Your task to perform on an android device: turn on notifications settings in the gmail app Image 0: 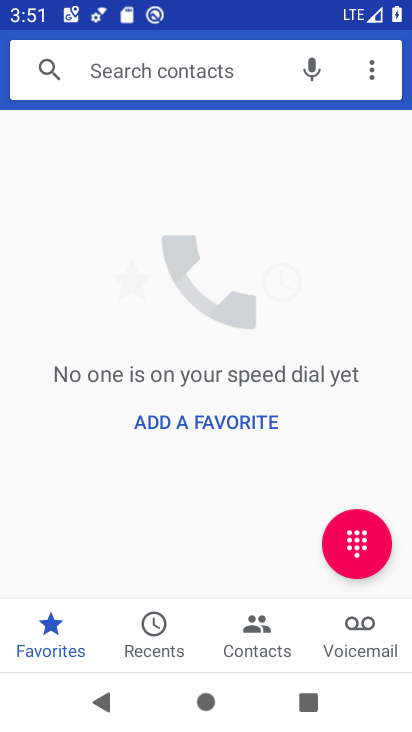
Step 0: press home button
Your task to perform on an android device: turn on notifications settings in the gmail app Image 1: 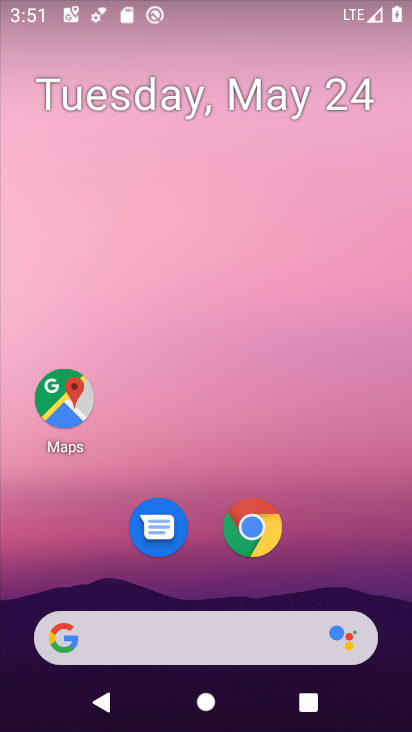
Step 1: click (360, 5)
Your task to perform on an android device: turn on notifications settings in the gmail app Image 2: 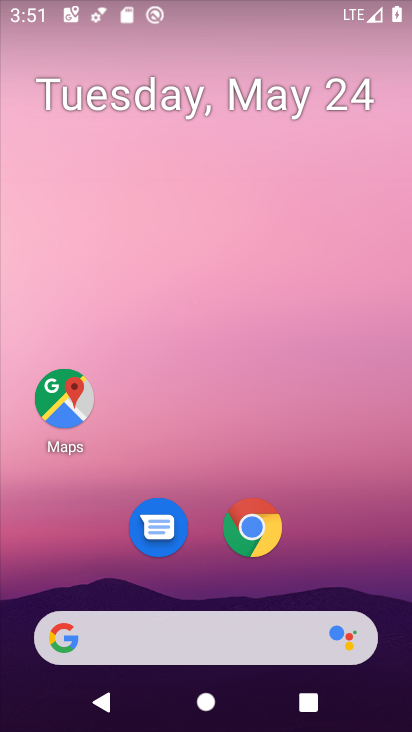
Step 2: drag from (343, 591) to (383, 701)
Your task to perform on an android device: turn on notifications settings in the gmail app Image 3: 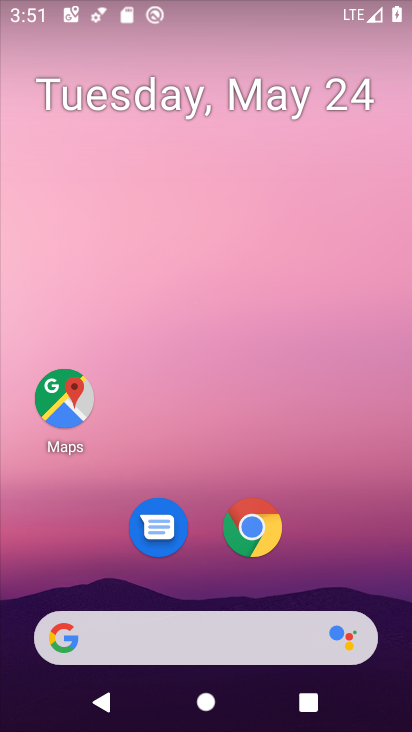
Step 3: drag from (338, 208) to (341, 0)
Your task to perform on an android device: turn on notifications settings in the gmail app Image 4: 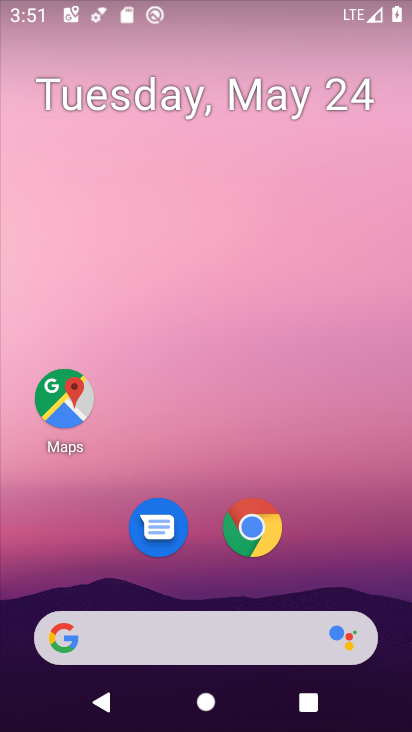
Step 4: drag from (340, 605) to (327, 14)
Your task to perform on an android device: turn on notifications settings in the gmail app Image 5: 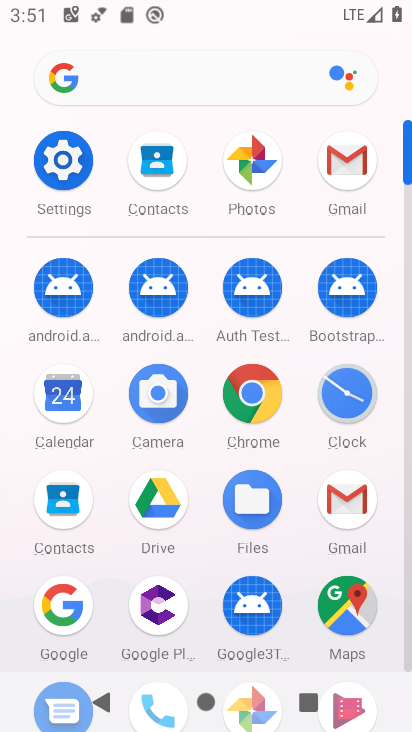
Step 5: click (349, 153)
Your task to perform on an android device: turn on notifications settings in the gmail app Image 6: 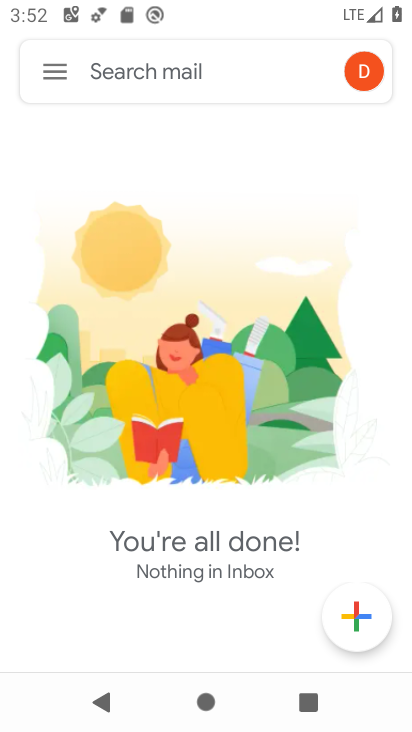
Step 6: click (52, 75)
Your task to perform on an android device: turn on notifications settings in the gmail app Image 7: 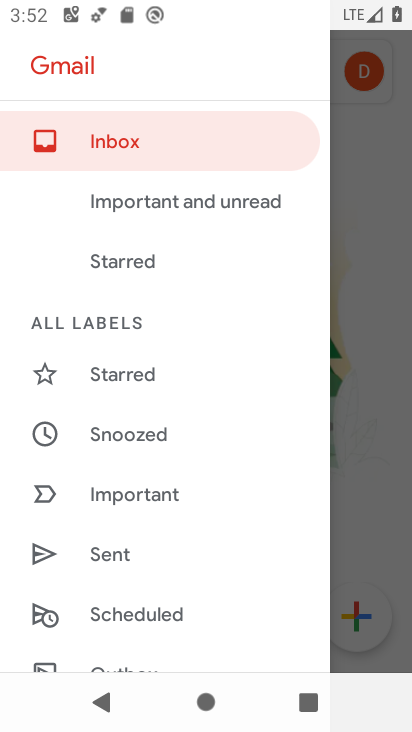
Step 7: drag from (233, 539) to (198, 64)
Your task to perform on an android device: turn on notifications settings in the gmail app Image 8: 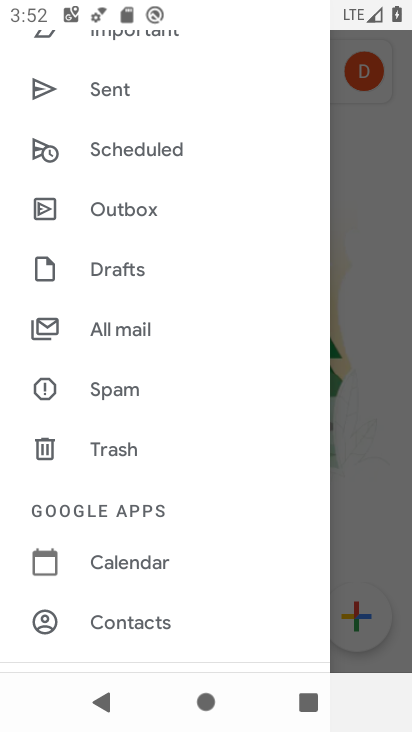
Step 8: drag from (156, 485) to (150, 28)
Your task to perform on an android device: turn on notifications settings in the gmail app Image 9: 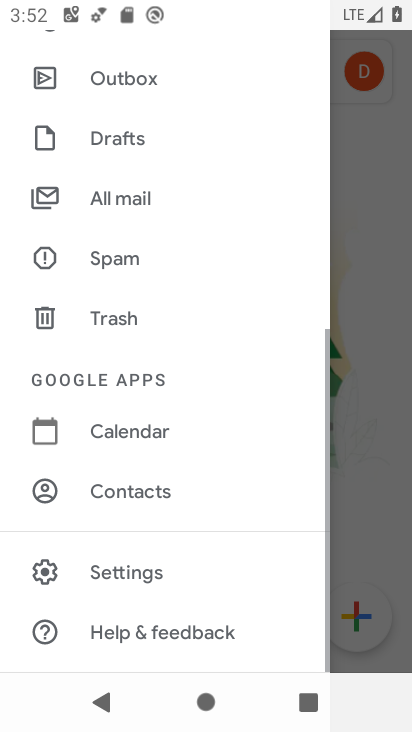
Step 9: click (113, 572)
Your task to perform on an android device: turn on notifications settings in the gmail app Image 10: 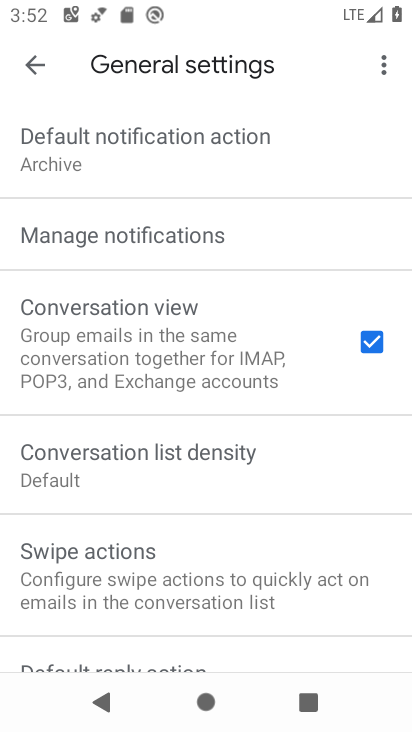
Step 10: click (140, 245)
Your task to perform on an android device: turn on notifications settings in the gmail app Image 11: 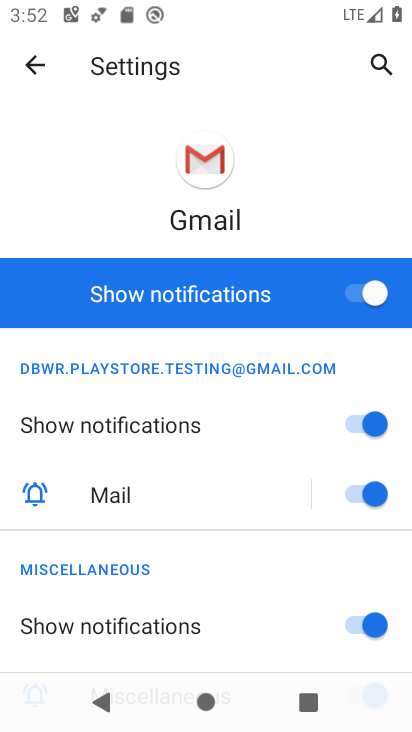
Step 11: task complete